Your task to perform on an android device: Show me the alarms in the clock app Image 0: 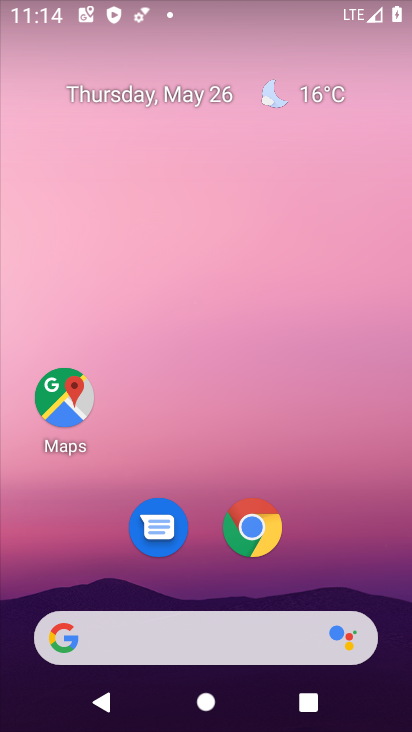
Step 0: drag from (204, 575) to (113, 0)
Your task to perform on an android device: Show me the alarms in the clock app Image 1: 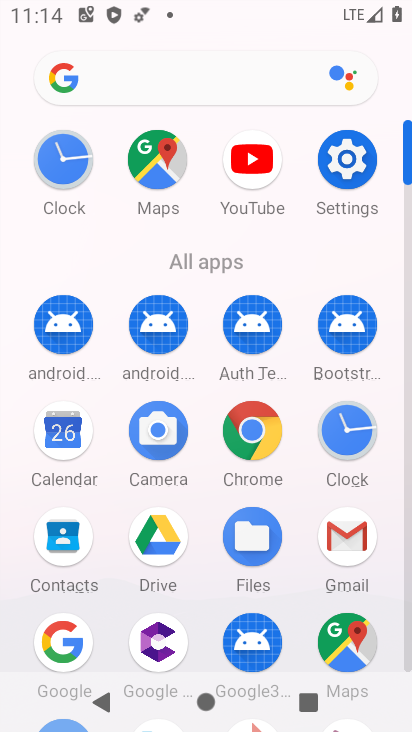
Step 1: click (358, 430)
Your task to perform on an android device: Show me the alarms in the clock app Image 2: 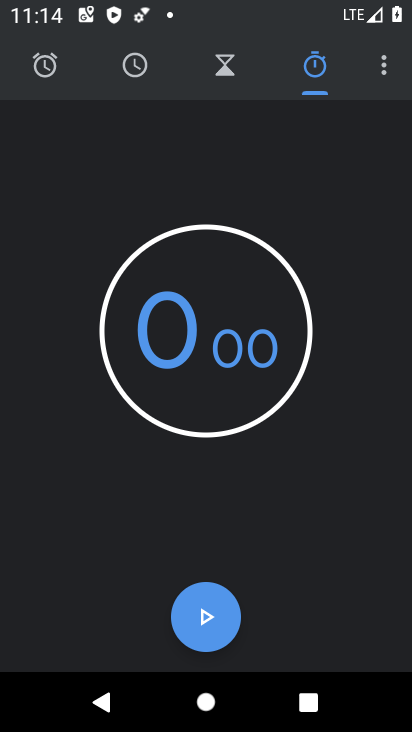
Step 2: click (39, 81)
Your task to perform on an android device: Show me the alarms in the clock app Image 3: 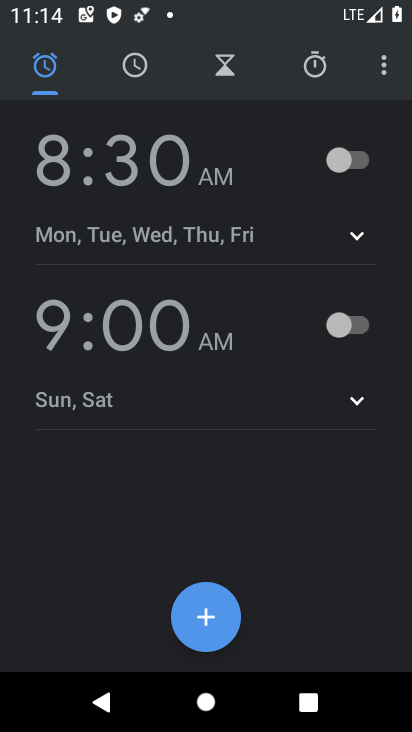
Step 3: task complete